Your task to perform on an android device: turn notification dots off Image 0: 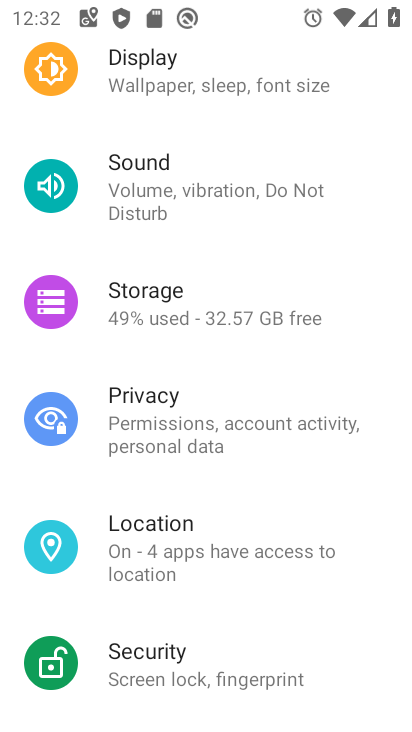
Step 0: press home button
Your task to perform on an android device: turn notification dots off Image 1: 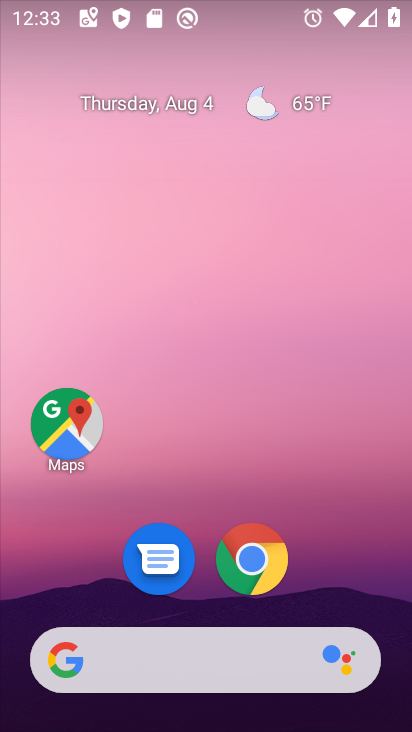
Step 1: drag from (177, 683) to (289, 102)
Your task to perform on an android device: turn notification dots off Image 2: 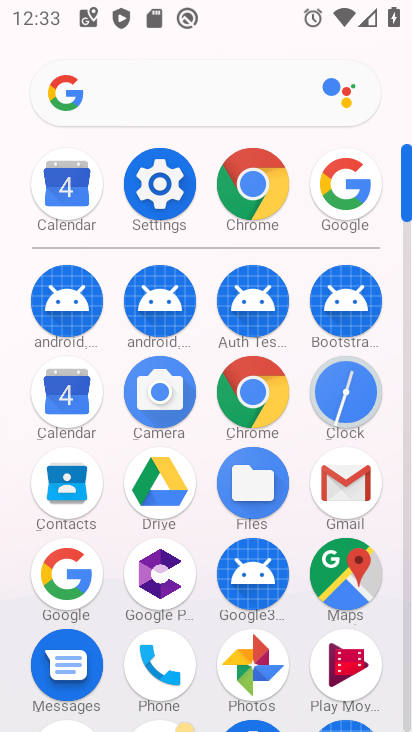
Step 2: click (162, 185)
Your task to perform on an android device: turn notification dots off Image 3: 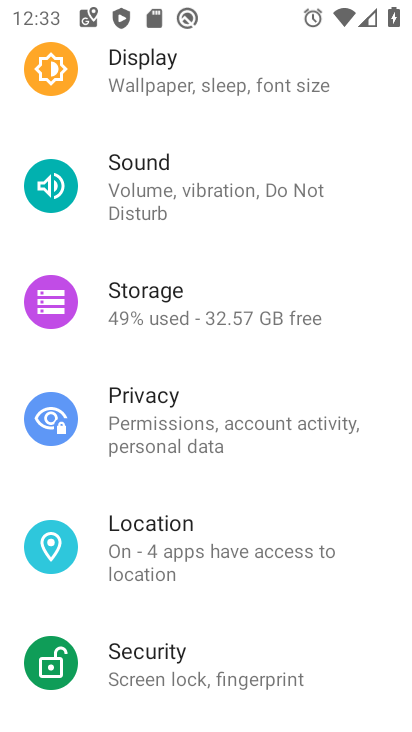
Step 3: drag from (246, 157) to (254, 308)
Your task to perform on an android device: turn notification dots off Image 4: 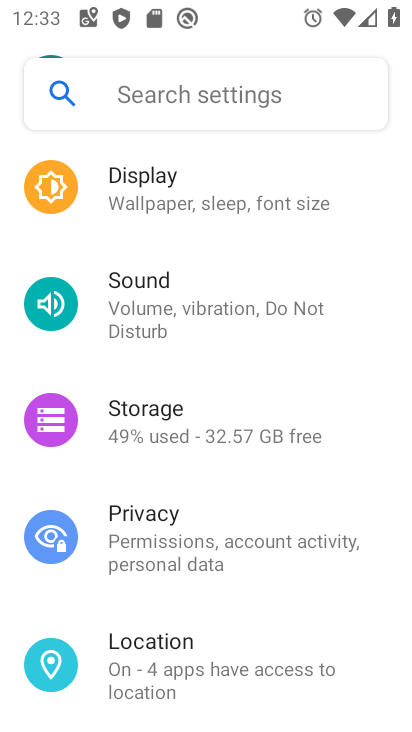
Step 4: drag from (210, 167) to (247, 358)
Your task to perform on an android device: turn notification dots off Image 5: 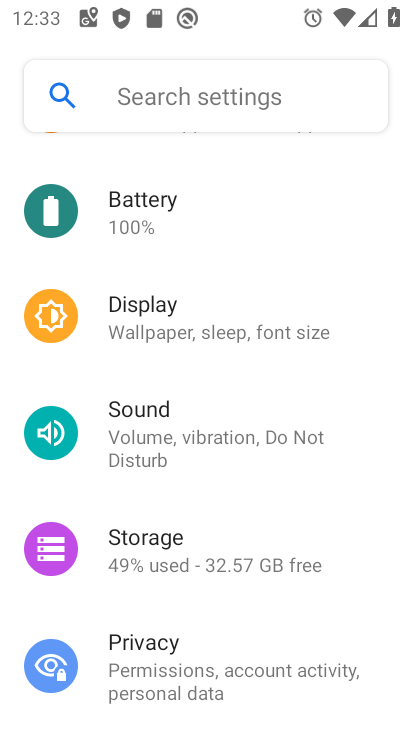
Step 5: drag from (261, 206) to (288, 374)
Your task to perform on an android device: turn notification dots off Image 6: 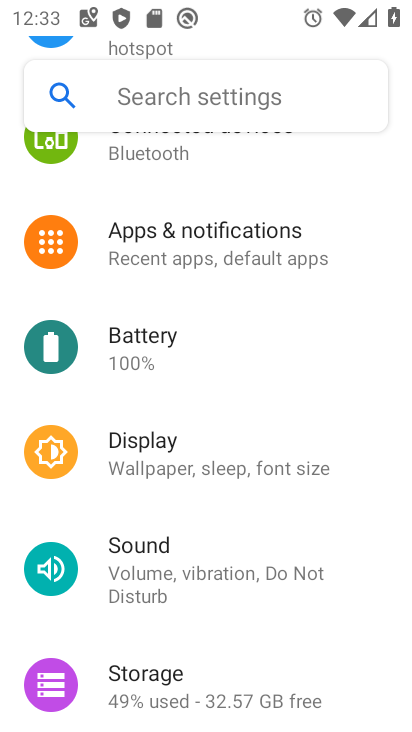
Step 6: click (238, 243)
Your task to perform on an android device: turn notification dots off Image 7: 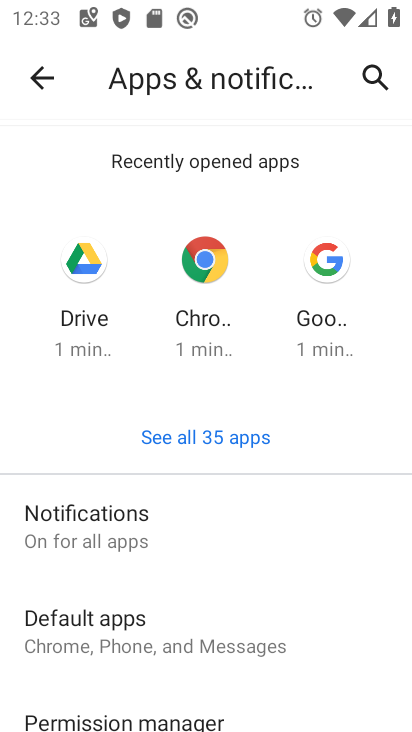
Step 7: click (96, 534)
Your task to perform on an android device: turn notification dots off Image 8: 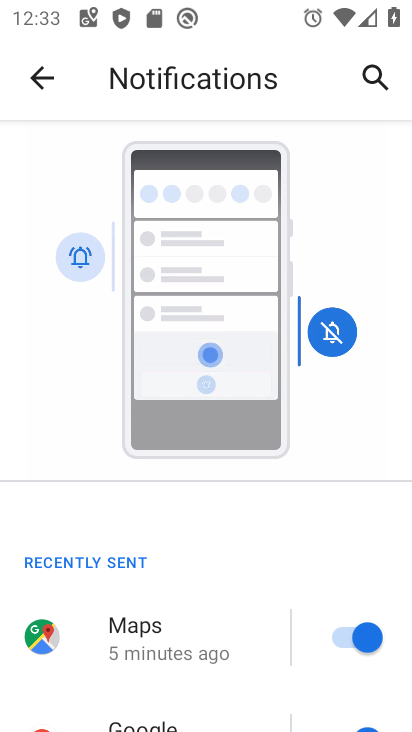
Step 8: drag from (158, 666) to (187, 470)
Your task to perform on an android device: turn notification dots off Image 9: 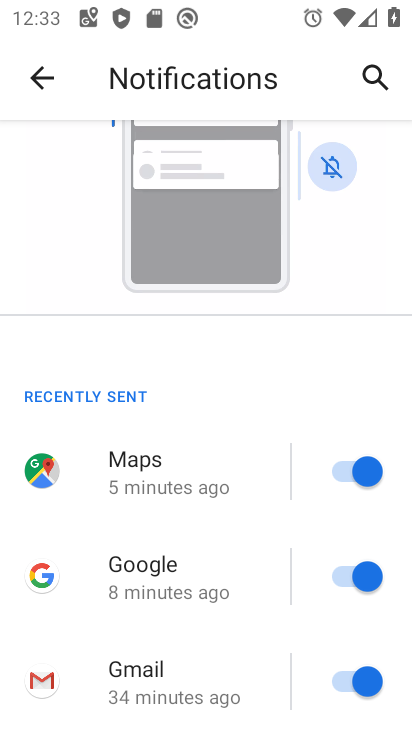
Step 9: drag from (162, 632) to (252, 439)
Your task to perform on an android device: turn notification dots off Image 10: 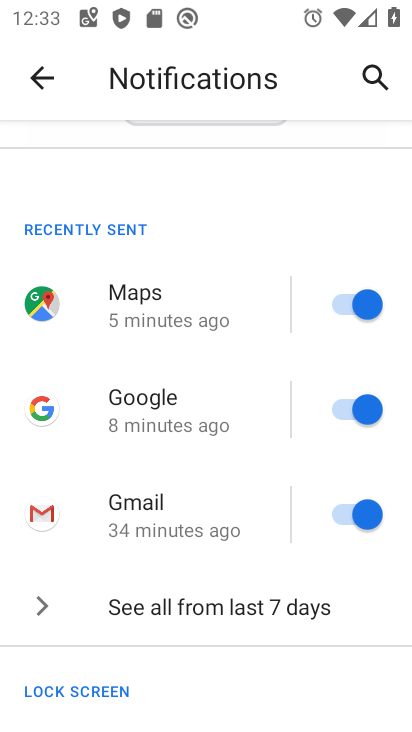
Step 10: drag from (147, 688) to (190, 477)
Your task to perform on an android device: turn notification dots off Image 11: 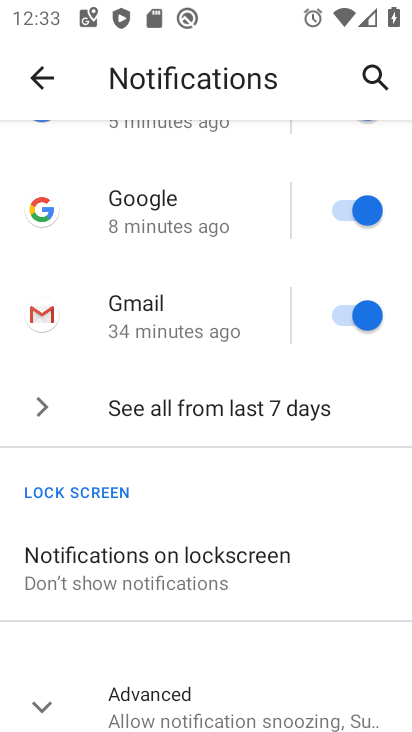
Step 11: drag from (224, 663) to (258, 516)
Your task to perform on an android device: turn notification dots off Image 12: 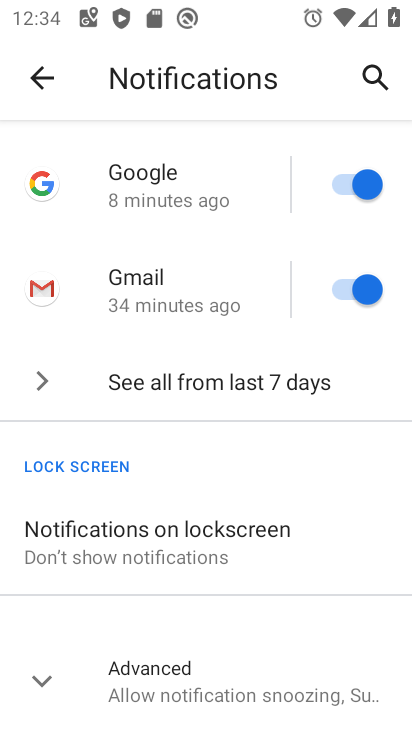
Step 12: click (183, 694)
Your task to perform on an android device: turn notification dots off Image 13: 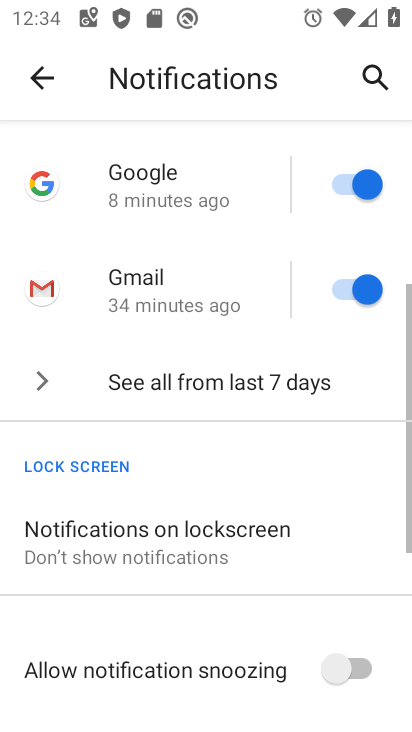
Step 13: drag from (172, 622) to (227, 491)
Your task to perform on an android device: turn notification dots off Image 14: 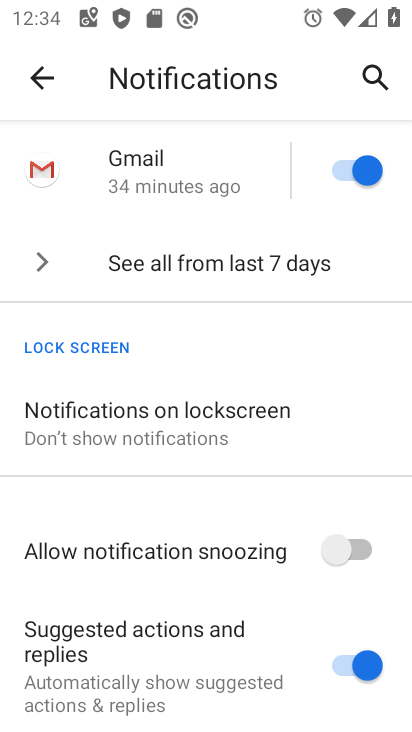
Step 14: drag from (195, 670) to (266, 497)
Your task to perform on an android device: turn notification dots off Image 15: 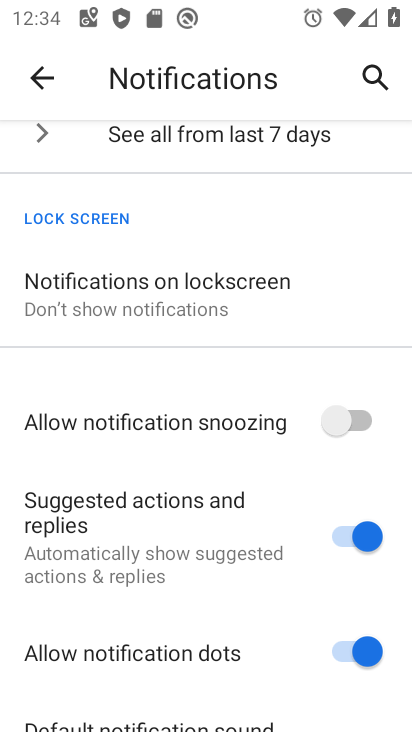
Step 15: click (342, 658)
Your task to perform on an android device: turn notification dots off Image 16: 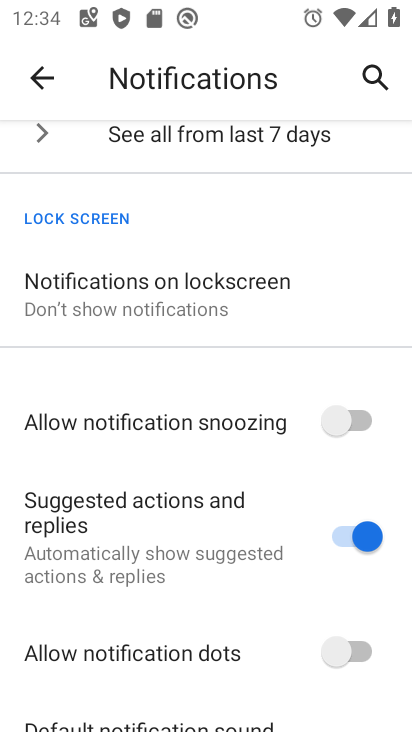
Step 16: task complete